Your task to perform on an android device: turn on wifi Image 0: 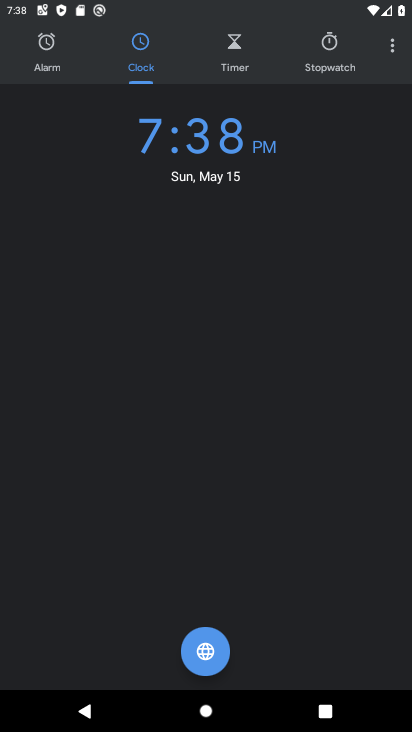
Step 0: press home button
Your task to perform on an android device: turn on wifi Image 1: 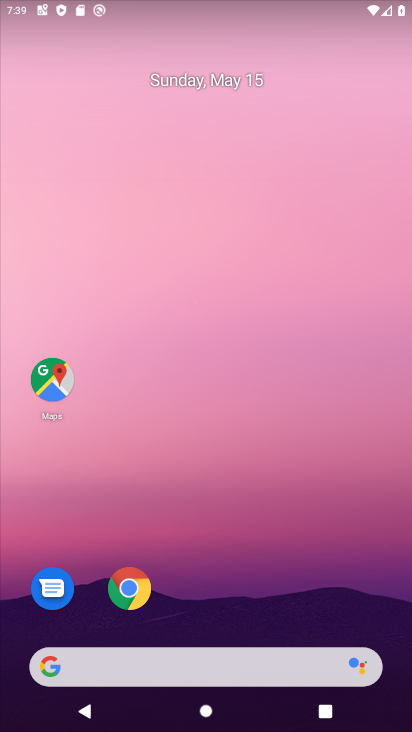
Step 1: task complete